Your task to perform on an android device: toggle notification dots Image 0: 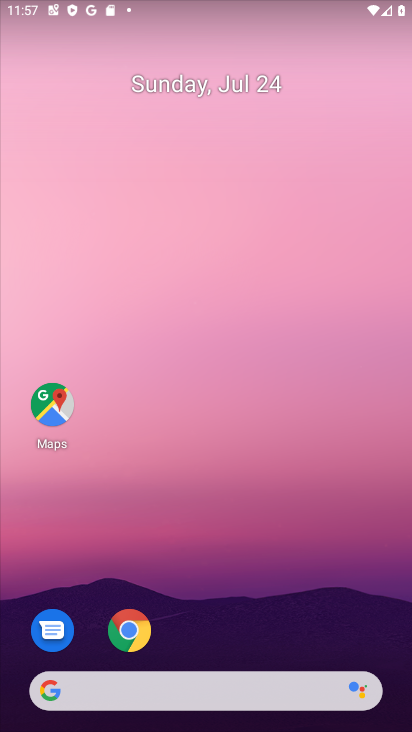
Step 0: press home button
Your task to perform on an android device: toggle notification dots Image 1: 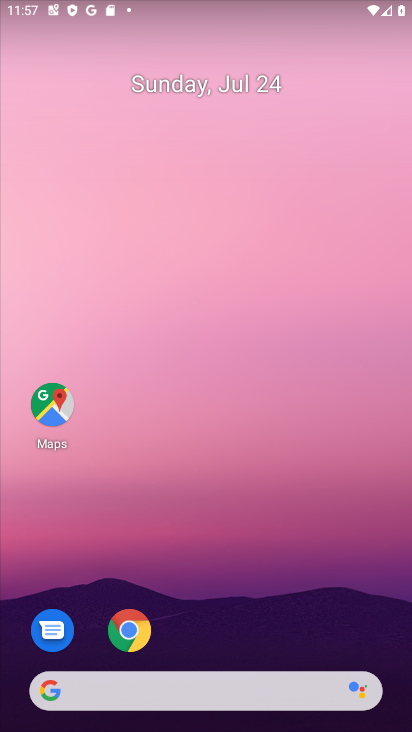
Step 1: click (331, 635)
Your task to perform on an android device: toggle notification dots Image 2: 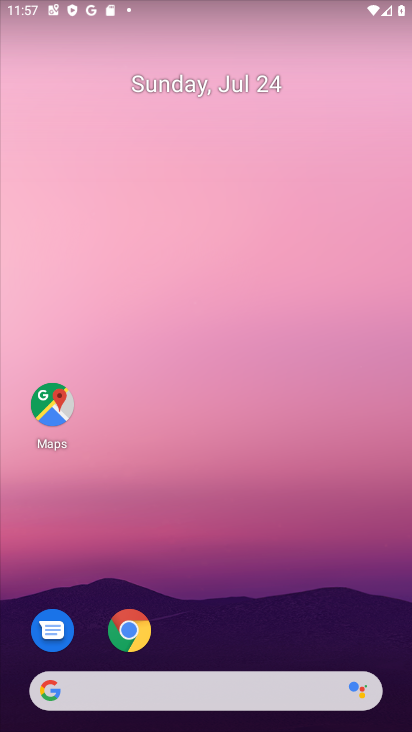
Step 2: drag from (284, 588) to (277, 481)
Your task to perform on an android device: toggle notification dots Image 3: 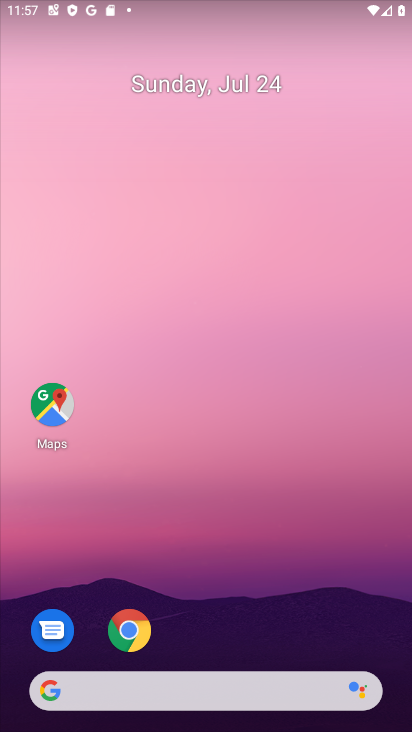
Step 3: drag from (308, 640) to (395, 0)
Your task to perform on an android device: toggle notification dots Image 4: 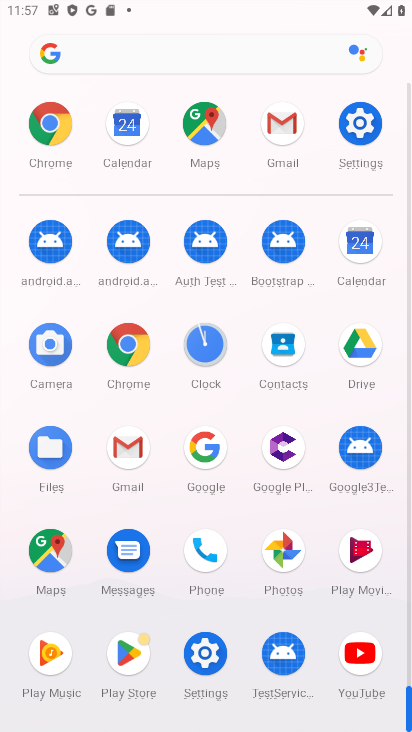
Step 4: click (190, 674)
Your task to perform on an android device: toggle notification dots Image 5: 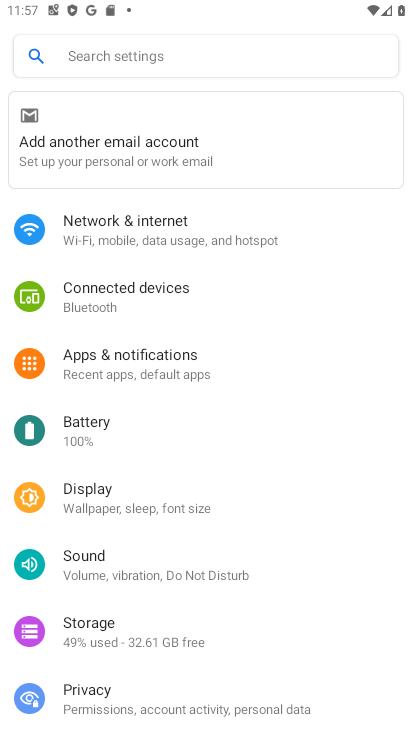
Step 5: click (127, 362)
Your task to perform on an android device: toggle notification dots Image 6: 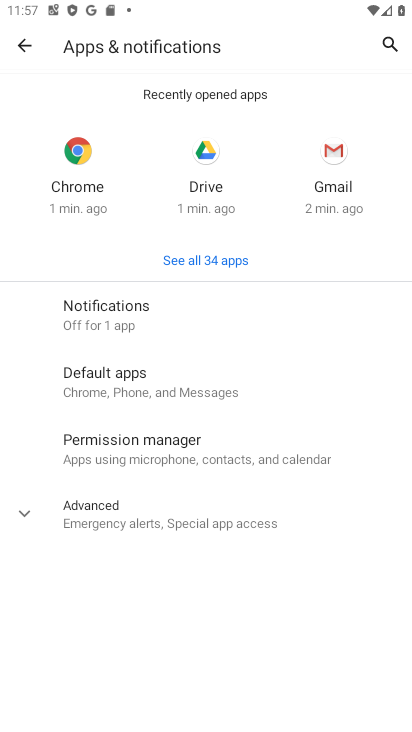
Step 6: click (64, 337)
Your task to perform on an android device: toggle notification dots Image 7: 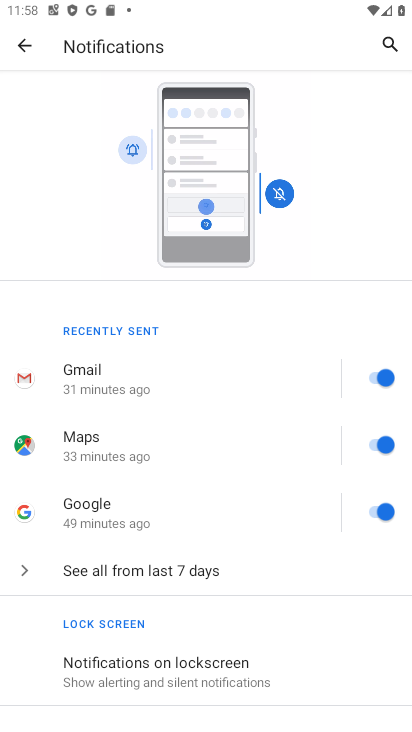
Step 7: drag from (200, 632) to (191, 400)
Your task to perform on an android device: toggle notification dots Image 8: 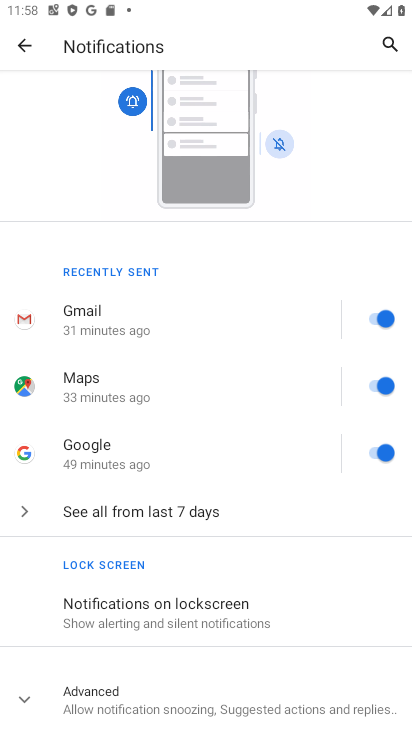
Step 8: click (73, 683)
Your task to perform on an android device: toggle notification dots Image 9: 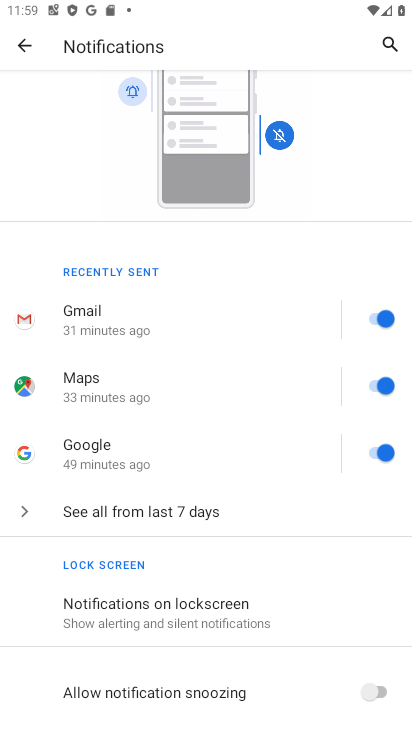
Step 9: drag from (211, 683) to (211, 362)
Your task to perform on an android device: toggle notification dots Image 10: 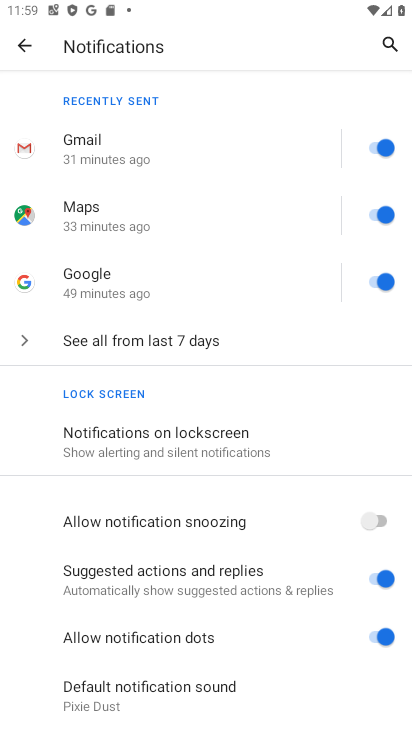
Step 10: click (136, 631)
Your task to perform on an android device: toggle notification dots Image 11: 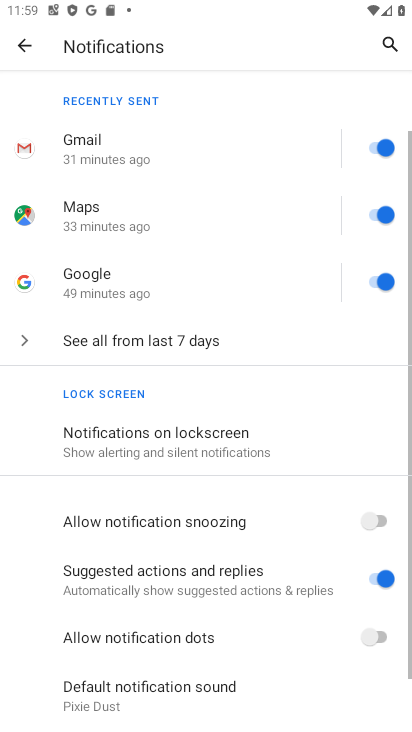
Step 11: task complete